Your task to perform on an android device: stop showing notifications on the lock screen Image 0: 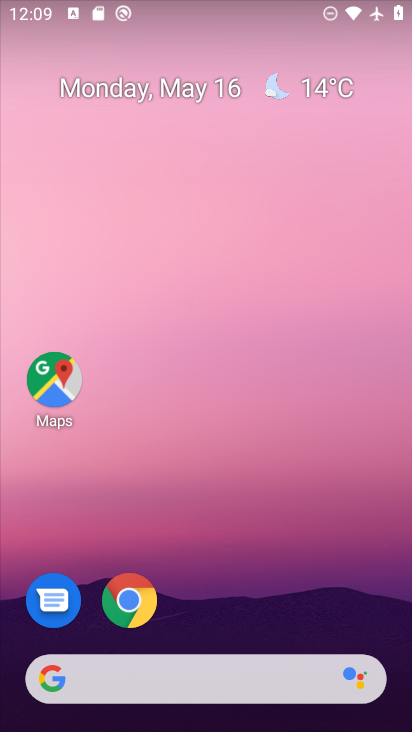
Step 0: drag from (392, 653) to (319, 97)
Your task to perform on an android device: stop showing notifications on the lock screen Image 1: 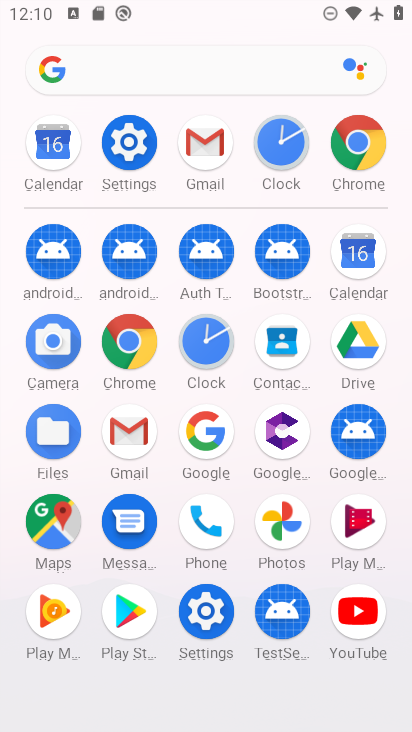
Step 1: click (206, 614)
Your task to perform on an android device: stop showing notifications on the lock screen Image 2: 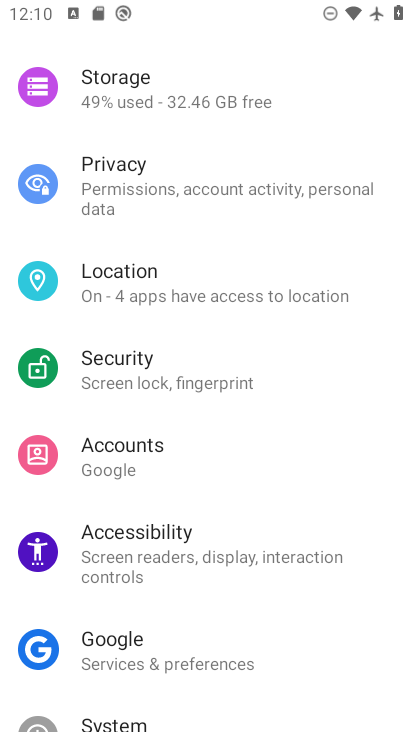
Step 2: drag from (313, 213) to (369, 639)
Your task to perform on an android device: stop showing notifications on the lock screen Image 3: 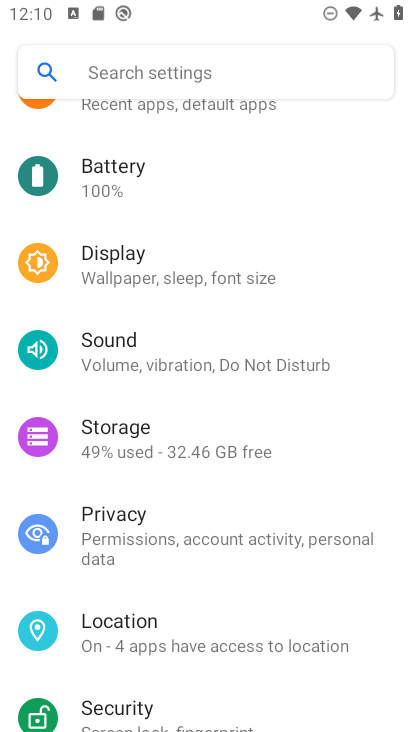
Step 3: drag from (336, 228) to (369, 598)
Your task to perform on an android device: stop showing notifications on the lock screen Image 4: 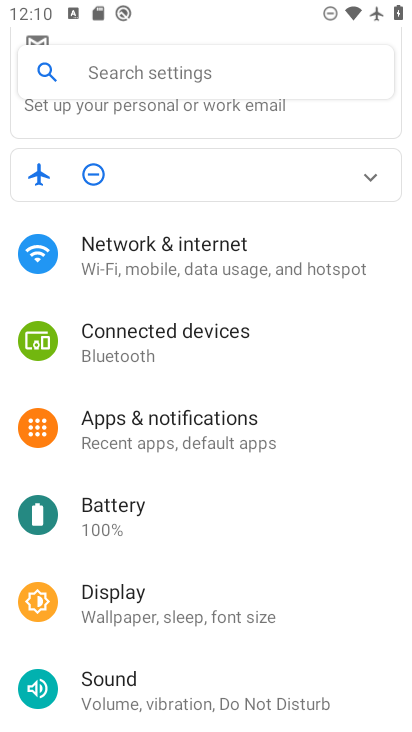
Step 4: click (145, 436)
Your task to perform on an android device: stop showing notifications on the lock screen Image 5: 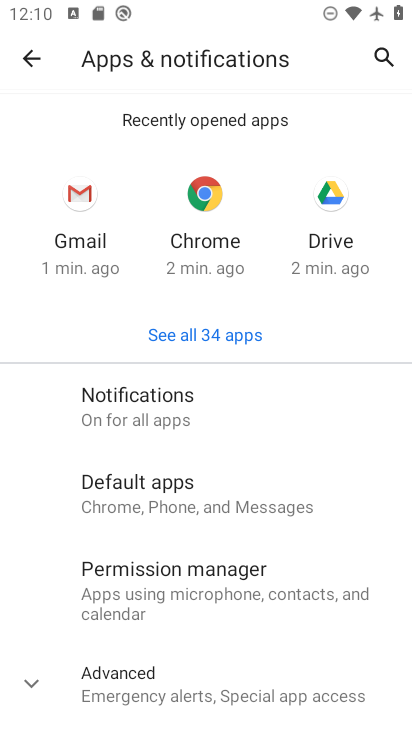
Step 5: click (117, 407)
Your task to perform on an android device: stop showing notifications on the lock screen Image 6: 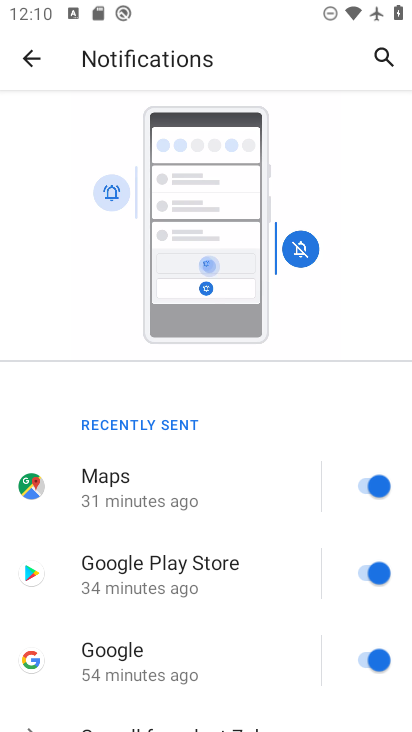
Step 6: drag from (334, 707) to (180, 139)
Your task to perform on an android device: stop showing notifications on the lock screen Image 7: 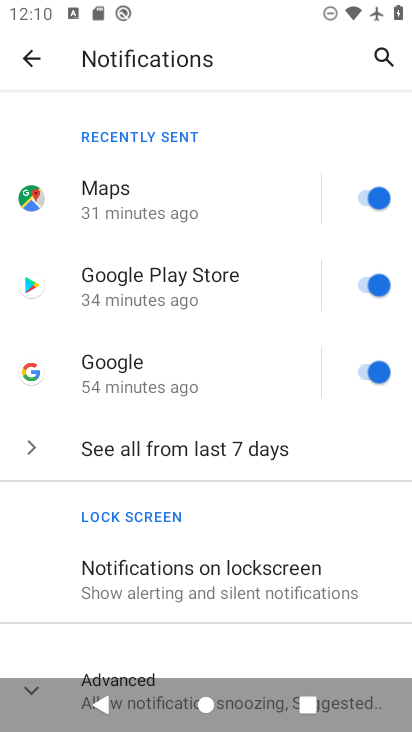
Step 7: click (140, 571)
Your task to perform on an android device: stop showing notifications on the lock screen Image 8: 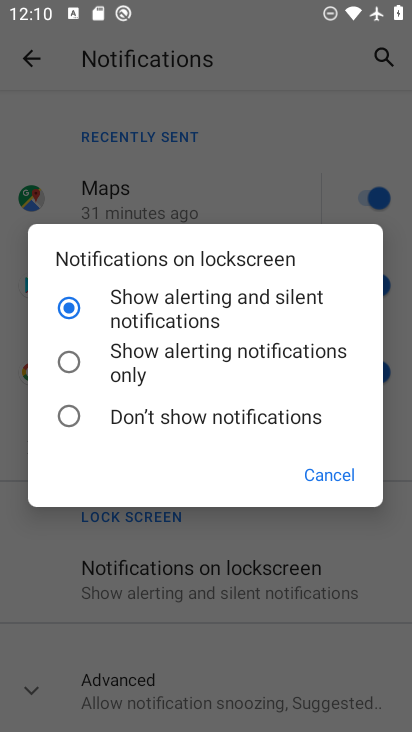
Step 8: click (62, 412)
Your task to perform on an android device: stop showing notifications on the lock screen Image 9: 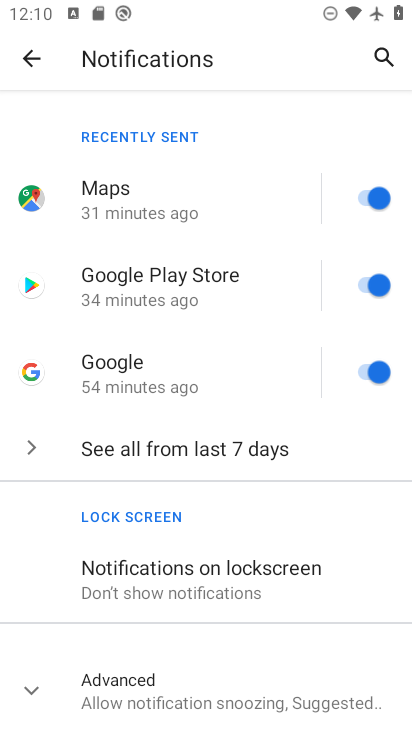
Step 9: task complete